Your task to perform on an android device: Open Google Chrome Image 0: 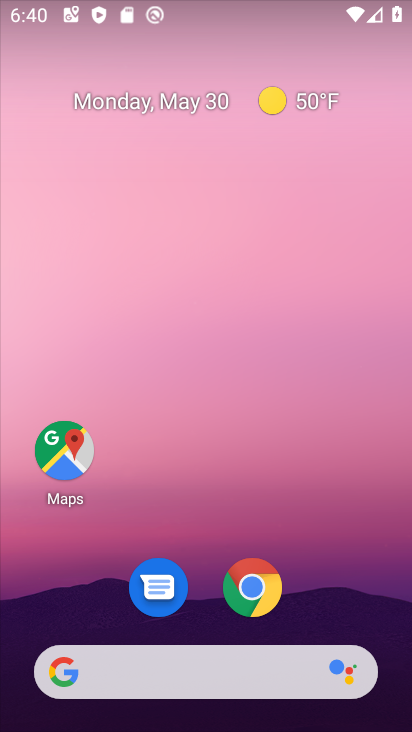
Step 0: drag from (313, 557) to (233, 34)
Your task to perform on an android device: Open Google Chrome Image 1: 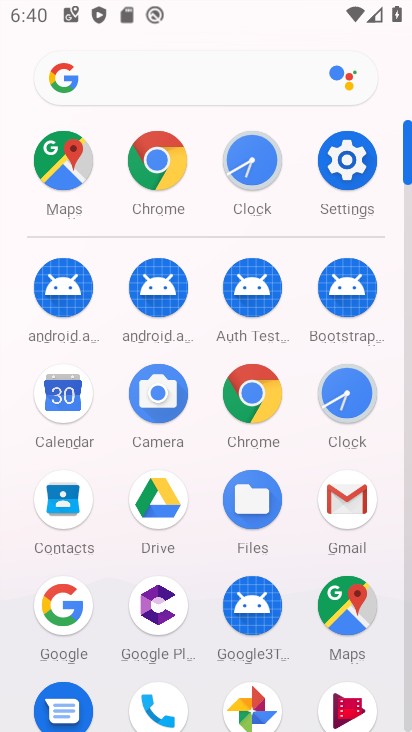
Step 1: click (250, 392)
Your task to perform on an android device: Open Google Chrome Image 2: 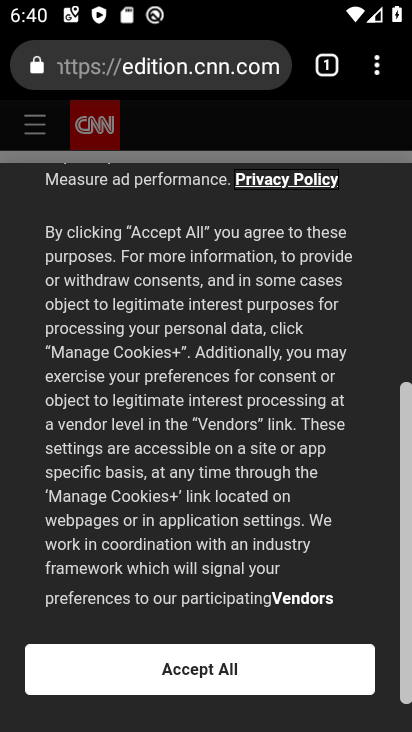
Step 2: task complete